Your task to perform on an android device: Go to Google maps Image 0: 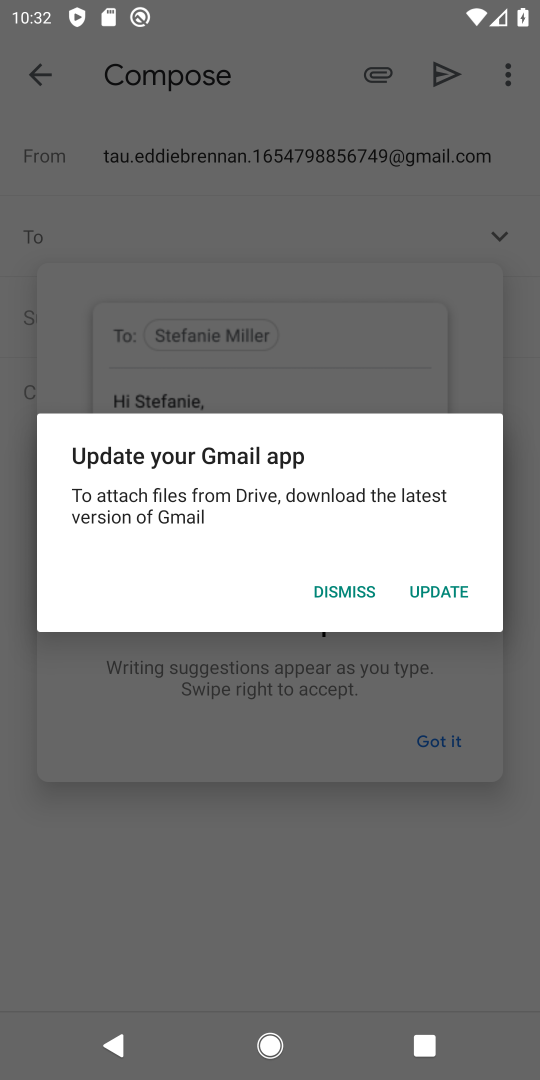
Step 0: press home button
Your task to perform on an android device: Go to Google maps Image 1: 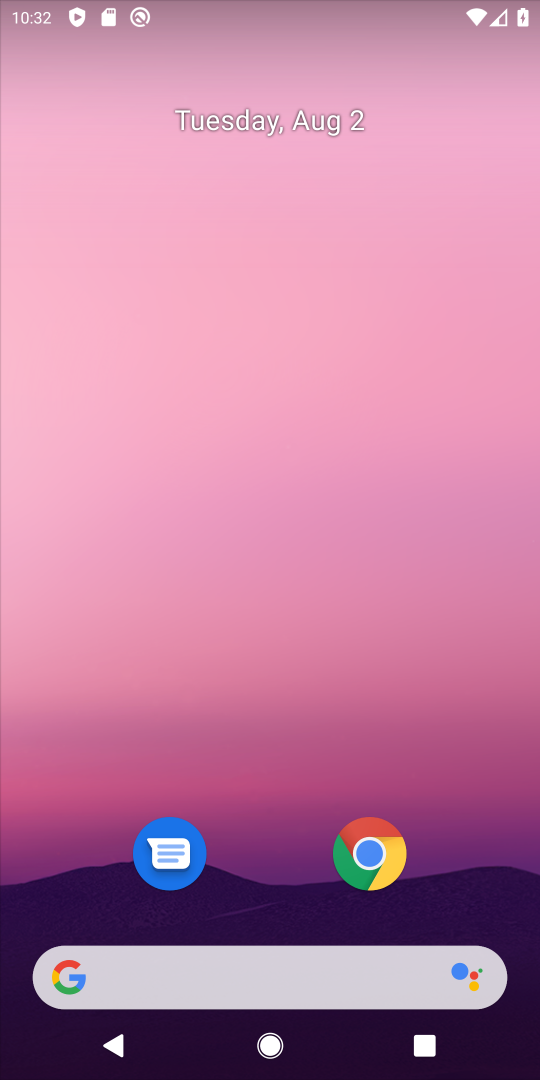
Step 1: drag from (256, 785) to (280, 258)
Your task to perform on an android device: Go to Google maps Image 2: 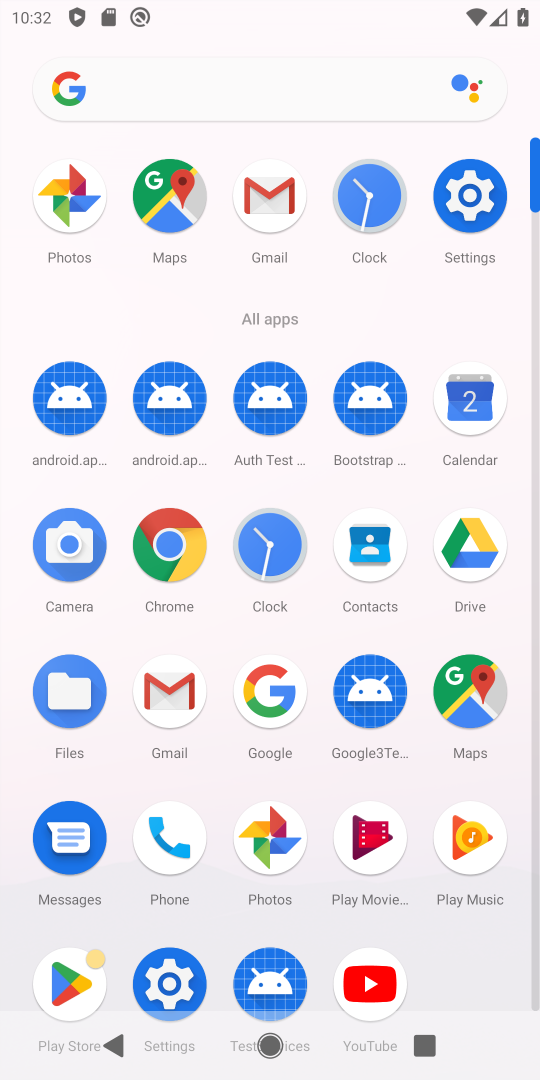
Step 2: click (467, 705)
Your task to perform on an android device: Go to Google maps Image 3: 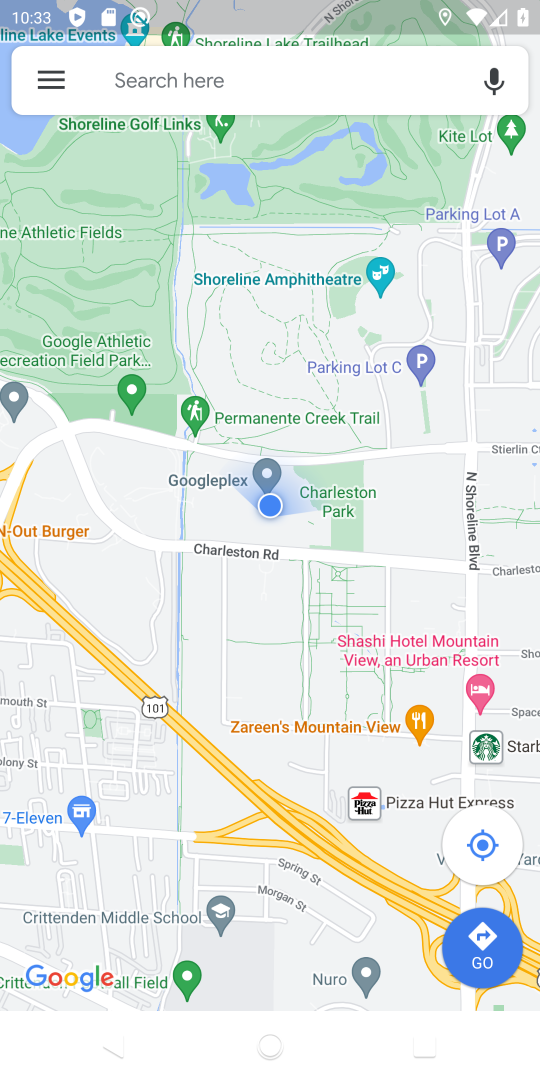
Step 3: task complete